Your task to perform on an android device: toggle javascript in the chrome app Image 0: 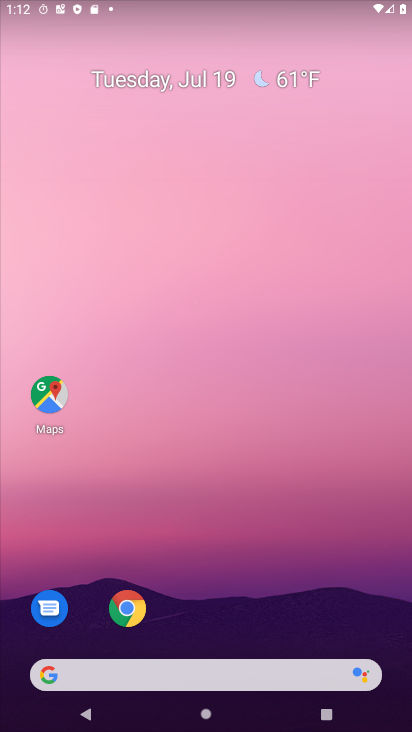
Step 0: drag from (230, 608) to (283, 112)
Your task to perform on an android device: toggle javascript in the chrome app Image 1: 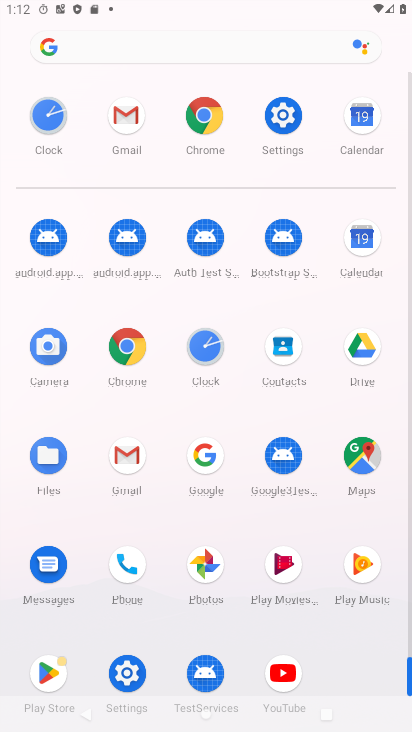
Step 1: click (215, 136)
Your task to perform on an android device: toggle javascript in the chrome app Image 2: 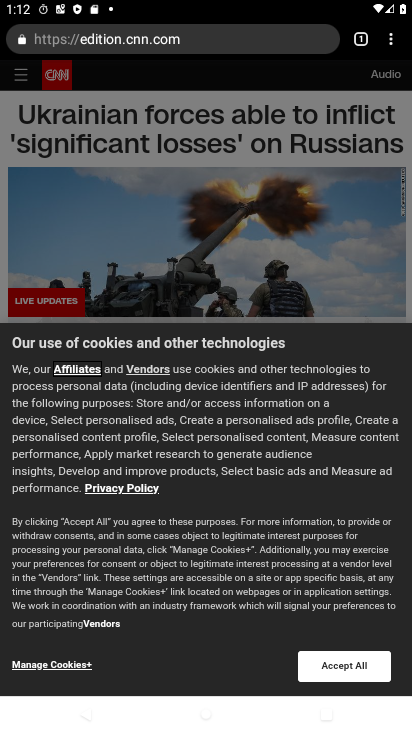
Step 2: drag from (391, 45) to (259, 431)
Your task to perform on an android device: toggle javascript in the chrome app Image 3: 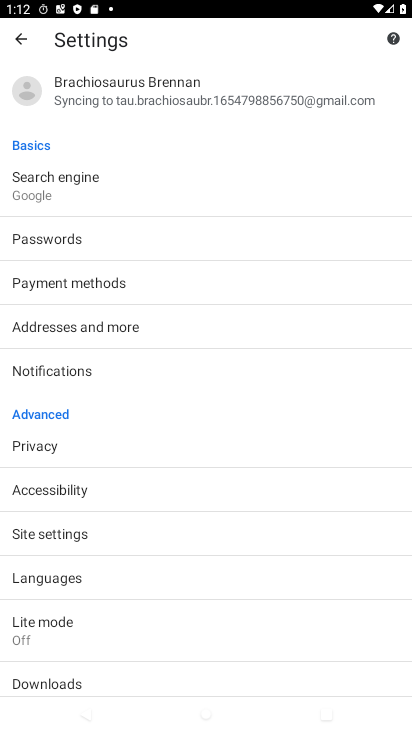
Step 3: click (54, 532)
Your task to perform on an android device: toggle javascript in the chrome app Image 4: 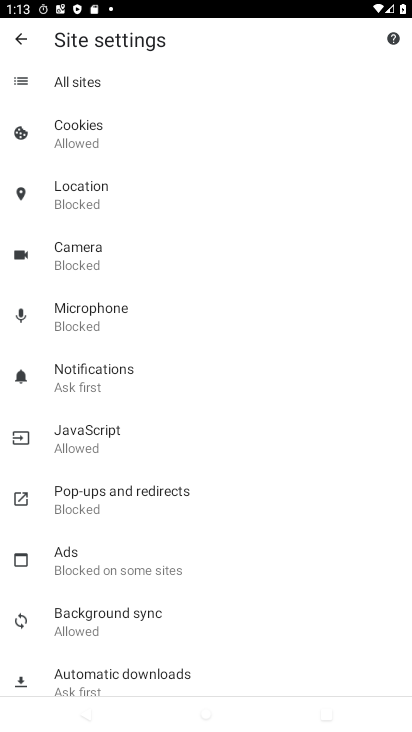
Step 4: click (67, 438)
Your task to perform on an android device: toggle javascript in the chrome app Image 5: 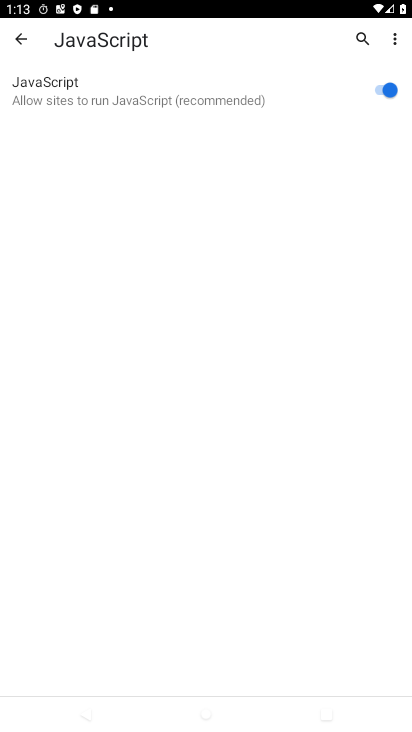
Step 5: click (382, 88)
Your task to perform on an android device: toggle javascript in the chrome app Image 6: 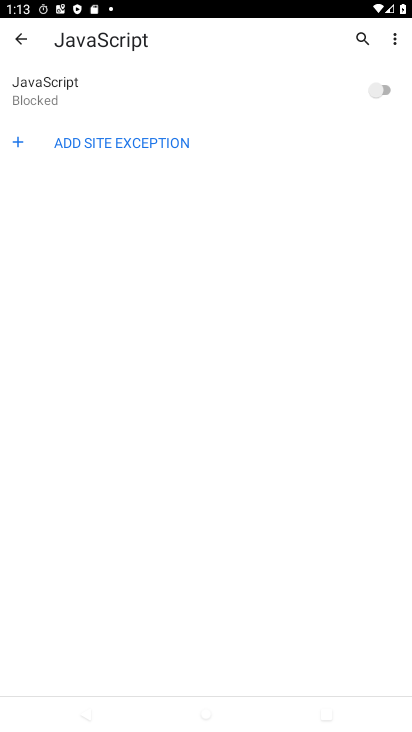
Step 6: task complete